Your task to perform on an android device: Empty the shopping cart on ebay. Search for apple airpods on ebay, select the first entry, add it to the cart, then select checkout. Image 0: 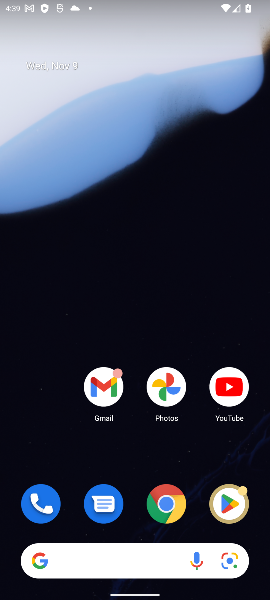
Step 0: click (104, 554)
Your task to perform on an android device: Empty the shopping cart on ebay. Search for apple airpods on ebay, select the first entry, add it to the cart, then select checkout. Image 1: 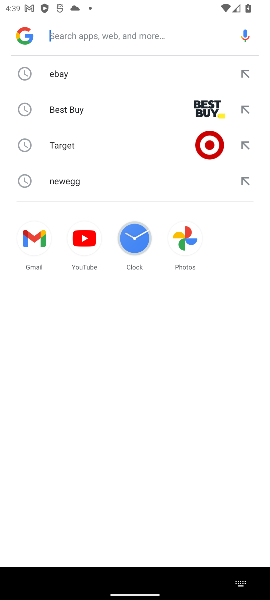
Step 1: click (80, 70)
Your task to perform on an android device: Empty the shopping cart on ebay. Search for apple airpods on ebay, select the first entry, add it to the cart, then select checkout. Image 2: 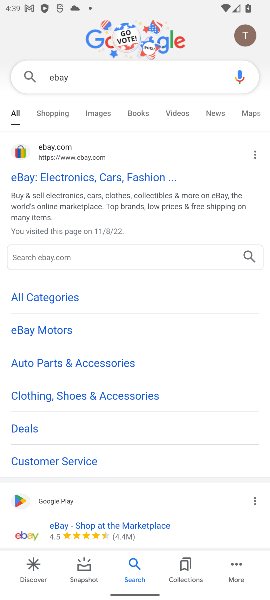
Step 2: click (62, 153)
Your task to perform on an android device: Empty the shopping cart on ebay. Search for apple airpods on ebay, select the first entry, add it to the cart, then select checkout. Image 3: 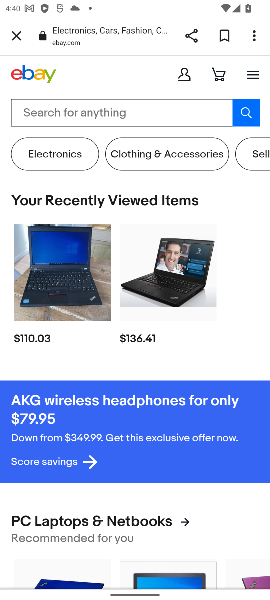
Step 3: click (147, 106)
Your task to perform on an android device: Empty the shopping cart on ebay. Search for apple airpods on ebay, select the first entry, add it to the cart, then select checkout. Image 4: 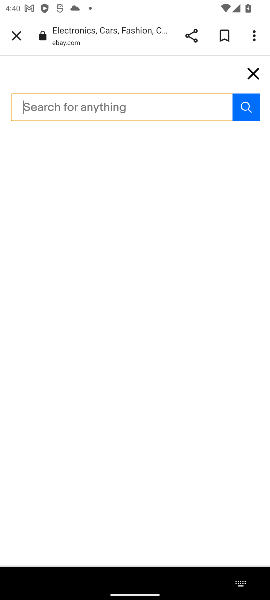
Step 4: type "apple airpods"
Your task to perform on an android device: Empty the shopping cart on ebay. Search for apple airpods on ebay, select the first entry, add it to the cart, then select checkout. Image 5: 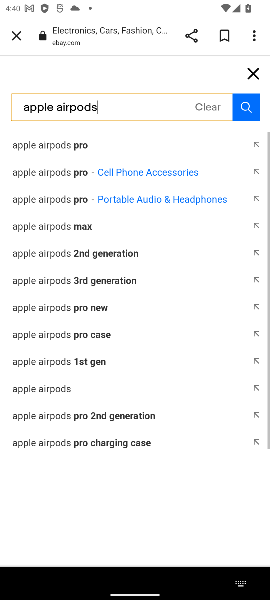
Step 5: click (82, 147)
Your task to perform on an android device: Empty the shopping cart on ebay. Search for apple airpods on ebay, select the first entry, add it to the cart, then select checkout. Image 6: 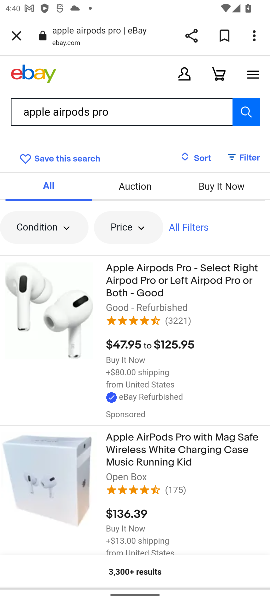
Step 6: click (164, 283)
Your task to perform on an android device: Empty the shopping cart on ebay. Search for apple airpods on ebay, select the first entry, add it to the cart, then select checkout. Image 7: 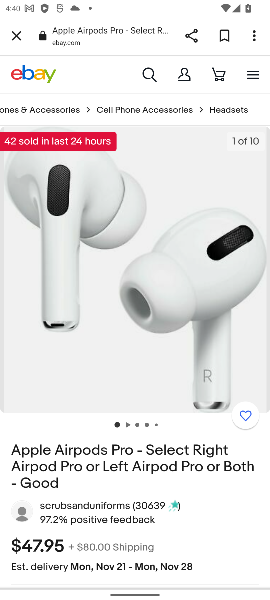
Step 7: drag from (112, 464) to (119, 244)
Your task to perform on an android device: Empty the shopping cart on ebay. Search for apple airpods on ebay, select the first entry, add it to the cart, then select checkout. Image 8: 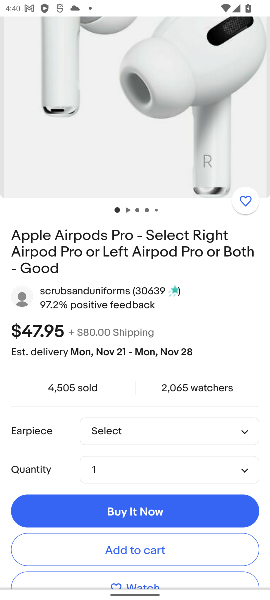
Step 8: click (143, 546)
Your task to perform on an android device: Empty the shopping cart on ebay. Search for apple airpods on ebay, select the first entry, add it to the cart, then select checkout. Image 9: 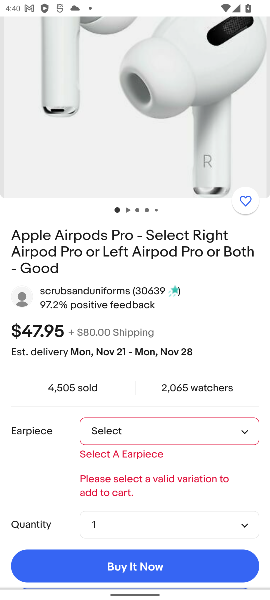
Step 9: click (245, 427)
Your task to perform on an android device: Empty the shopping cart on ebay. Search for apple airpods on ebay, select the first entry, add it to the cart, then select checkout. Image 10: 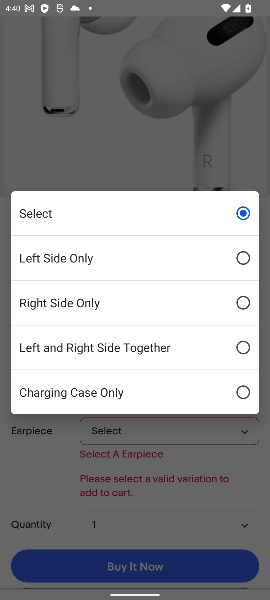
Step 10: click (245, 257)
Your task to perform on an android device: Empty the shopping cart on ebay. Search for apple airpods on ebay, select the first entry, add it to the cart, then select checkout. Image 11: 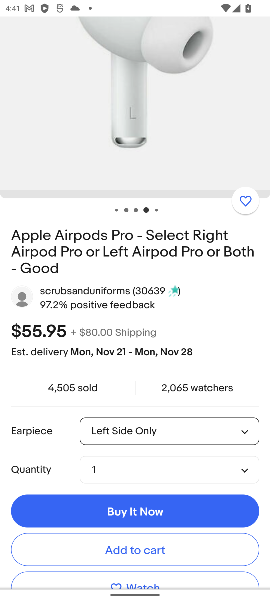
Step 11: click (136, 545)
Your task to perform on an android device: Empty the shopping cart on ebay. Search for apple airpods on ebay, select the first entry, add it to the cart, then select checkout. Image 12: 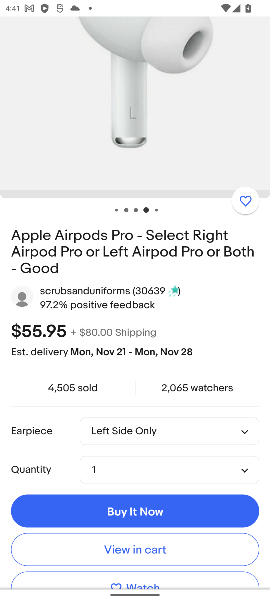
Step 12: click (136, 545)
Your task to perform on an android device: Empty the shopping cart on ebay. Search for apple airpods on ebay, select the first entry, add it to the cart, then select checkout. Image 13: 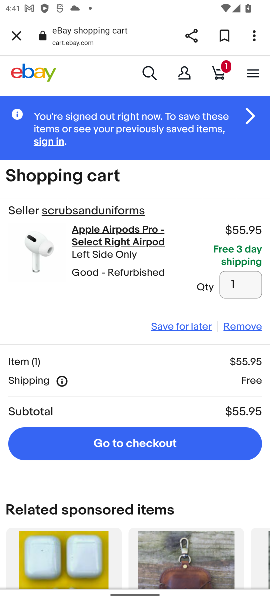
Step 13: task complete